Your task to perform on an android device: open app "DoorDash - Dasher" Image 0: 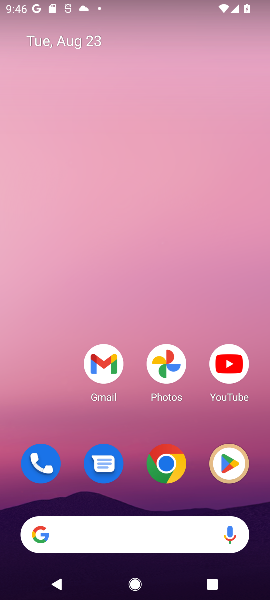
Step 0: press home button
Your task to perform on an android device: open app "DoorDash - Dasher" Image 1: 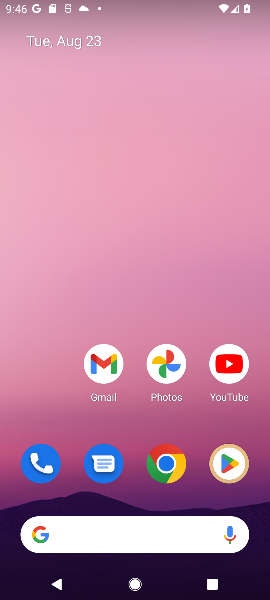
Step 1: click (229, 458)
Your task to perform on an android device: open app "DoorDash - Dasher" Image 2: 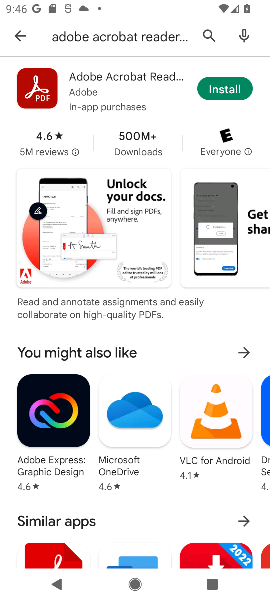
Step 2: click (200, 35)
Your task to perform on an android device: open app "DoorDash - Dasher" Image 3: 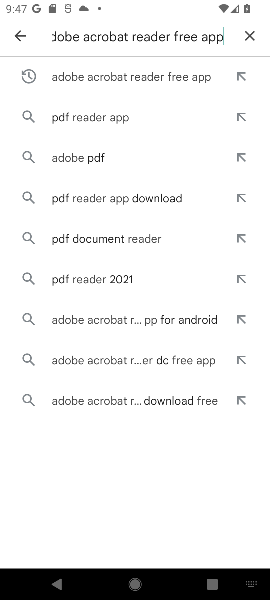
Step 3: click (246, 35)
Your task to perform on an android device: open app "DoorDash - Dasher" Image 4: 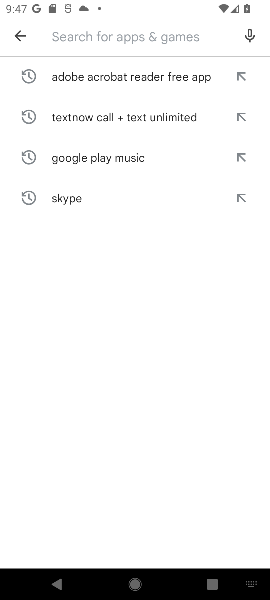
Step 4: type "DoorDash - Dasher"
Your task to perform on an android device: open app "DoorDash - Dasher" Image 5: 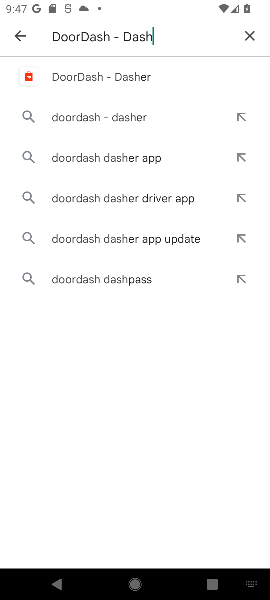
Step 5: type ""
Your task to perform on an android device: open app "DoorDash - Dasher" Image 6: 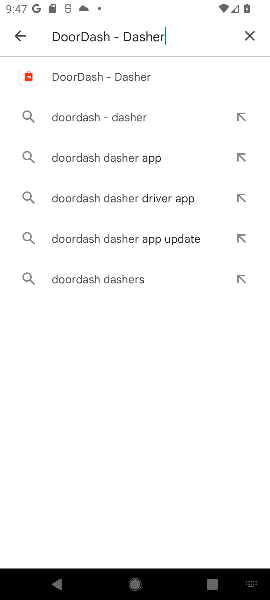
Step 6: click (154, 76)
Your task to perform on an android device: open app "DoorDash - Dasher" Image 7: 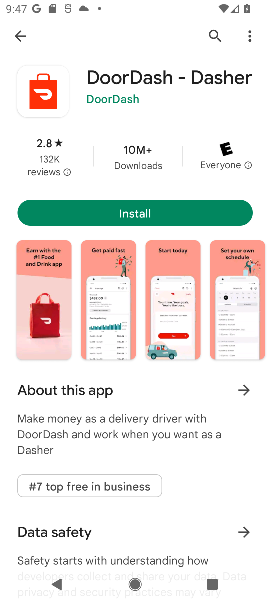
Step 7: task complete